Your task to perform on an android device: What is the capital of Germany? Image 0: 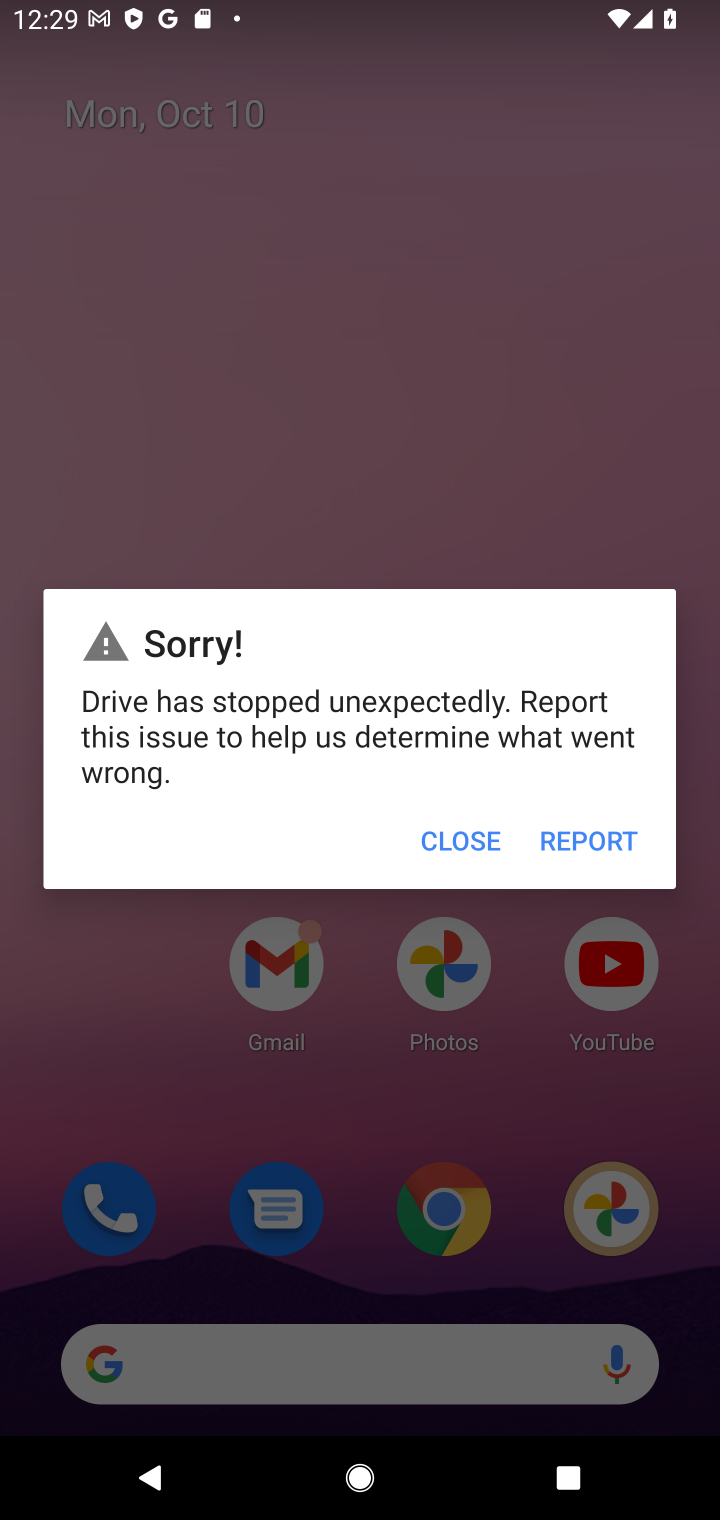
Step 0: drag from (351, 846) to (381, 241)
Your task to perform on an android device: What is the capital of Germany? Image 1: 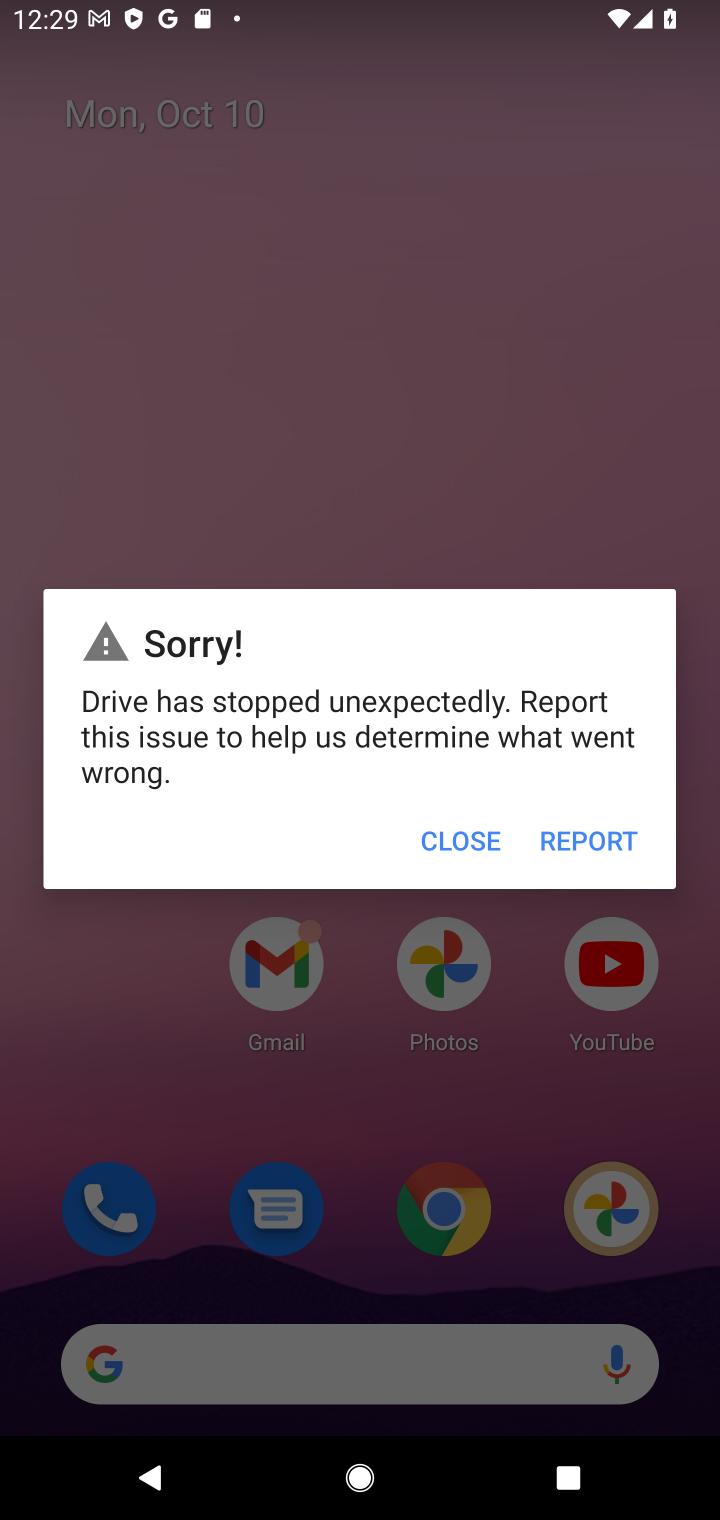
Step 1: click (465, 844)
Your task to perform on an android device: What is the capital of Germany? Image 2: 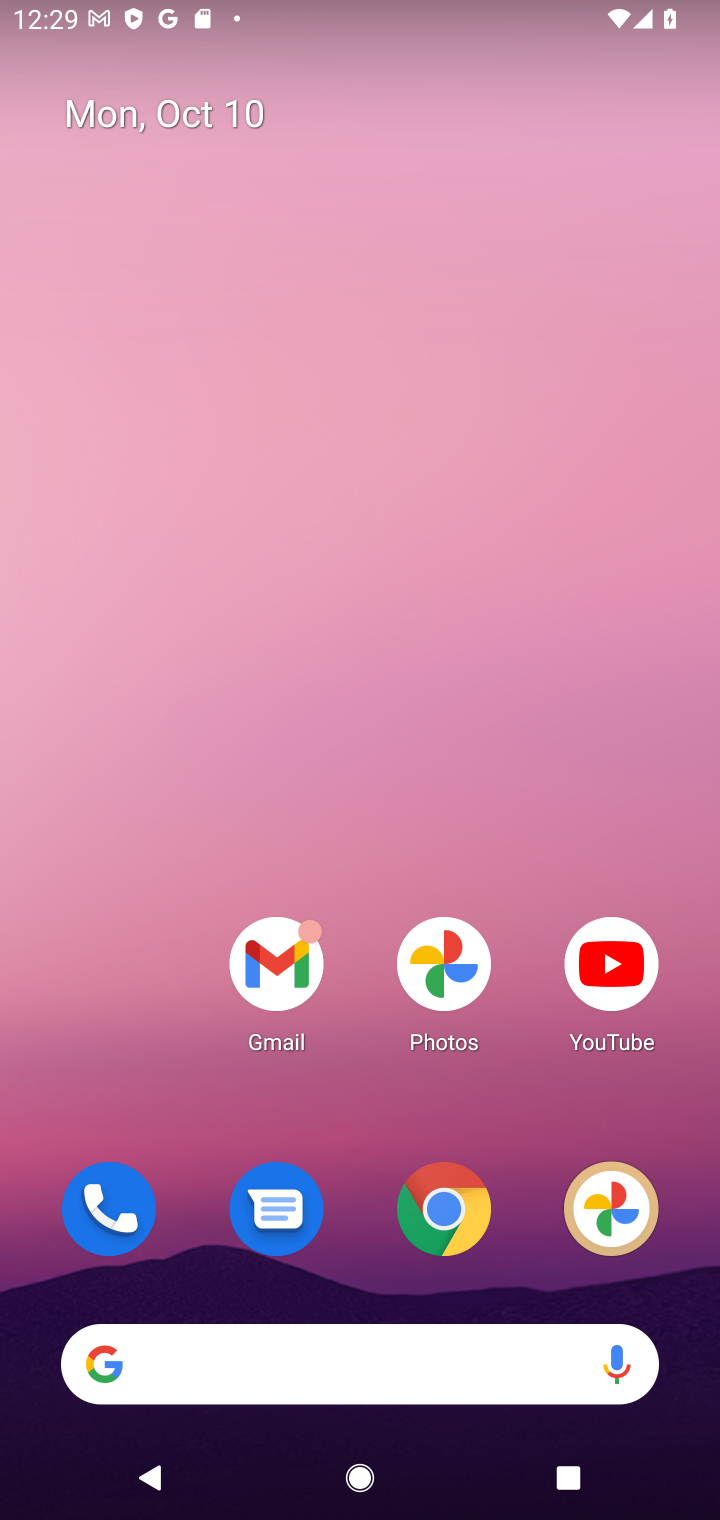
Step 2: drag from (353, 1270) to (495, 247)
Your task to perform on an android device: What is the capital of Germany? Image 3: 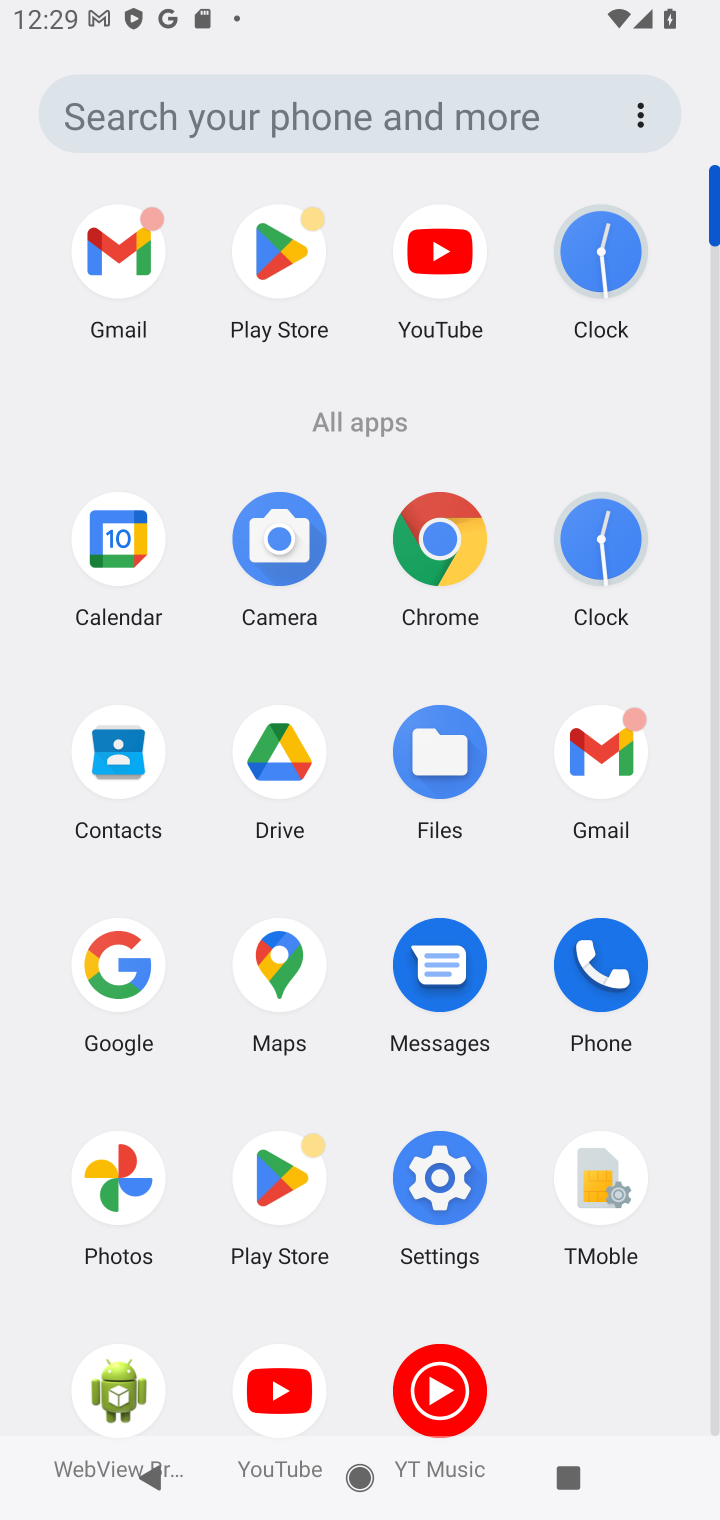
Step 3: click (95, 967)
Your task to perform on an android device: What is the capital of Germany? Image 4: 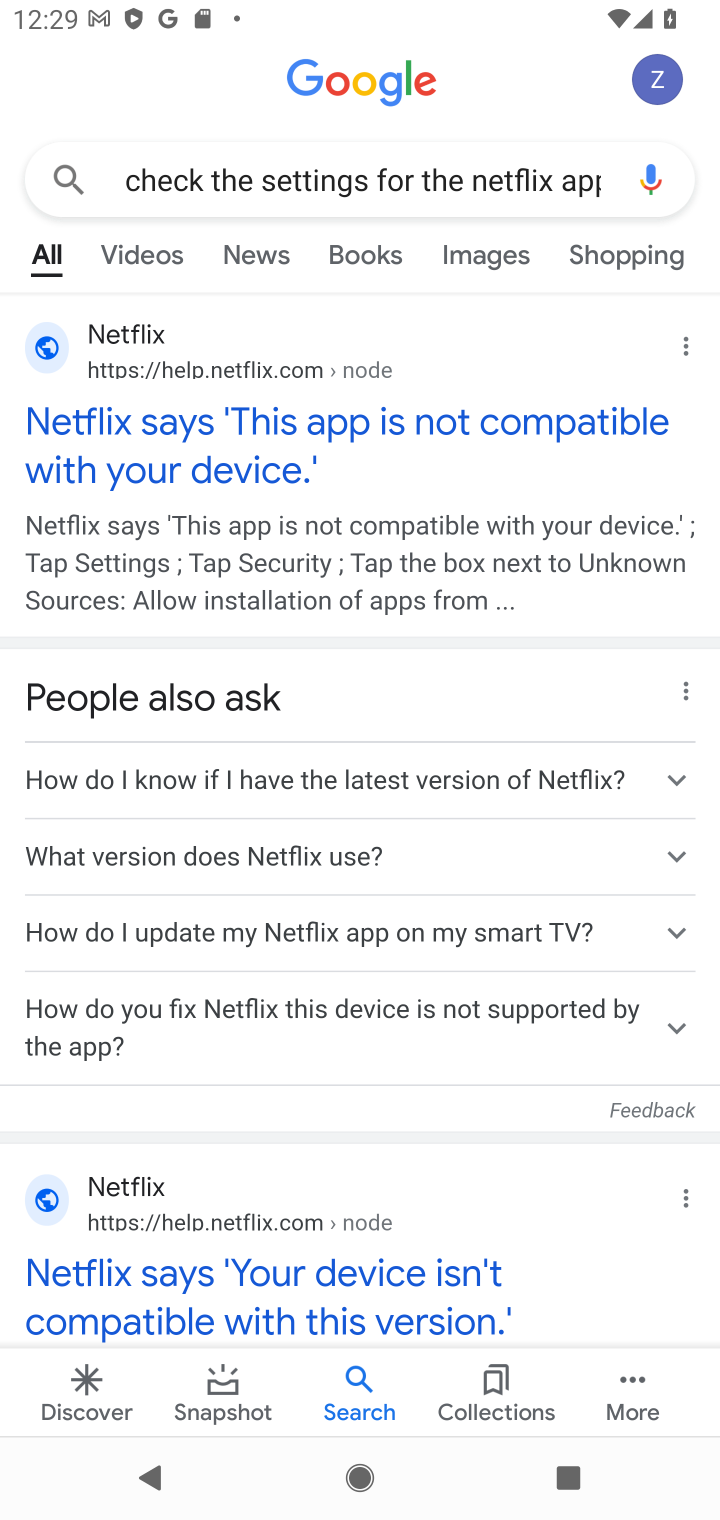
Step 4: click (480, 168)
Your task to perform on an android device: What is the capital of Germany? Image 5: 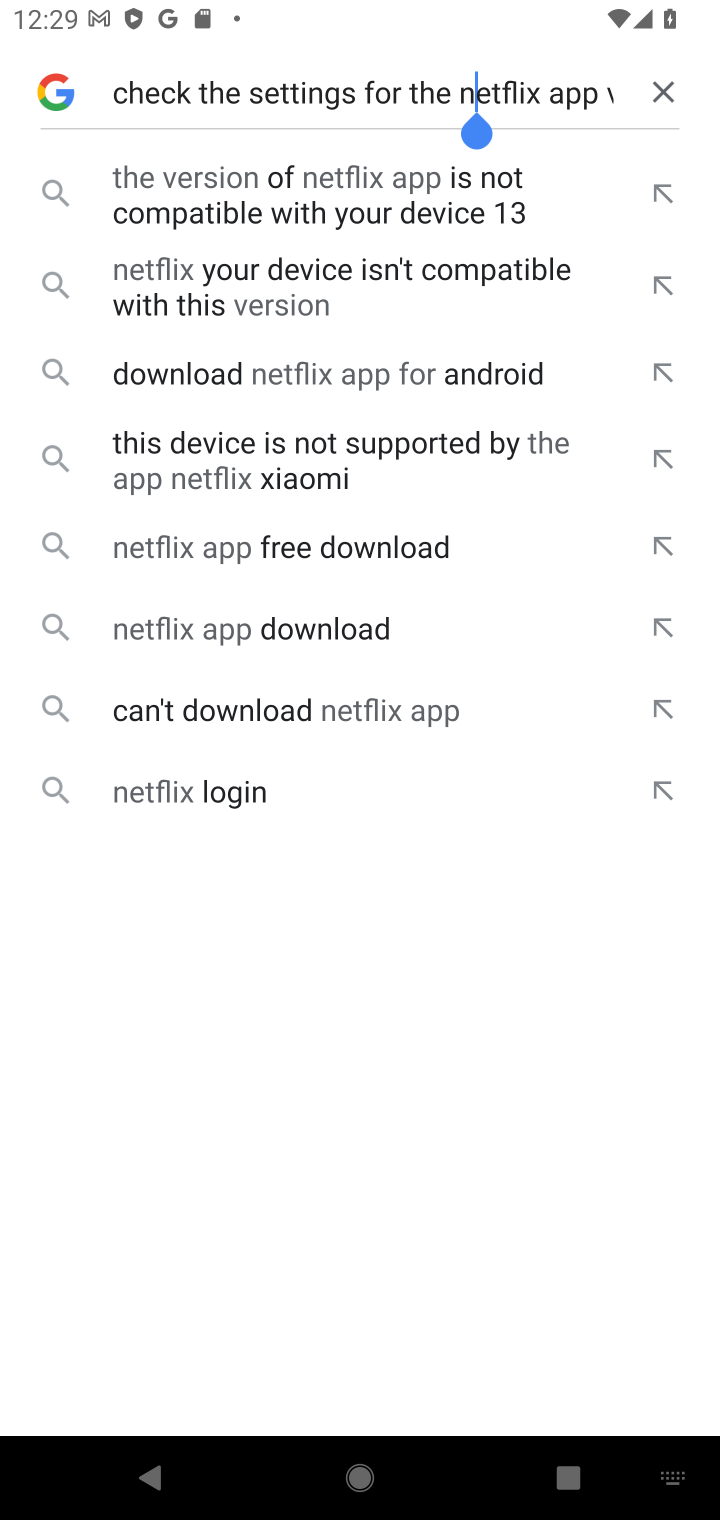
Step 5: click (659, 108)
Your task to perform on an android device: What is the capital of Germany? Image 6: 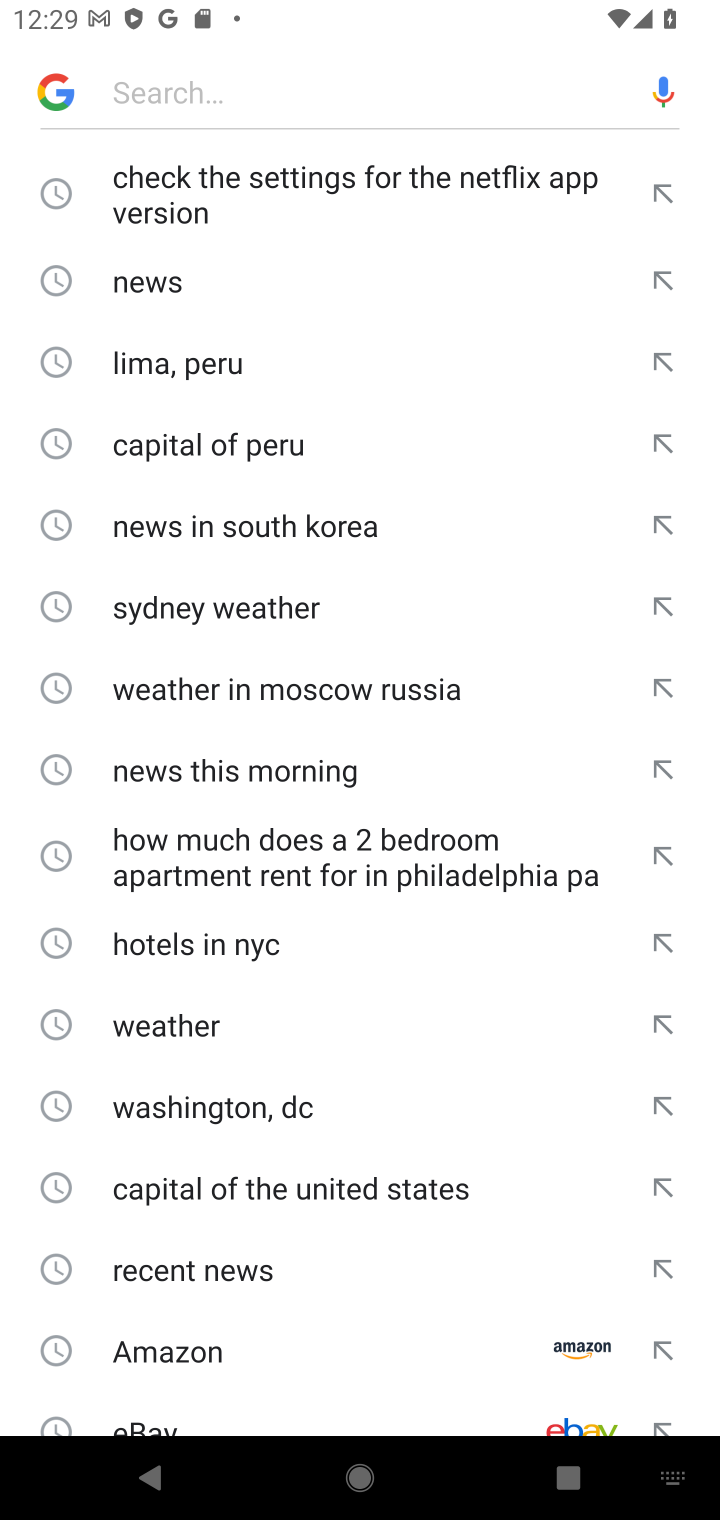
Step 6: type "What is the capital of Germany?"
Your task to perform on an android device: What is the capital of Germany? Image 7: 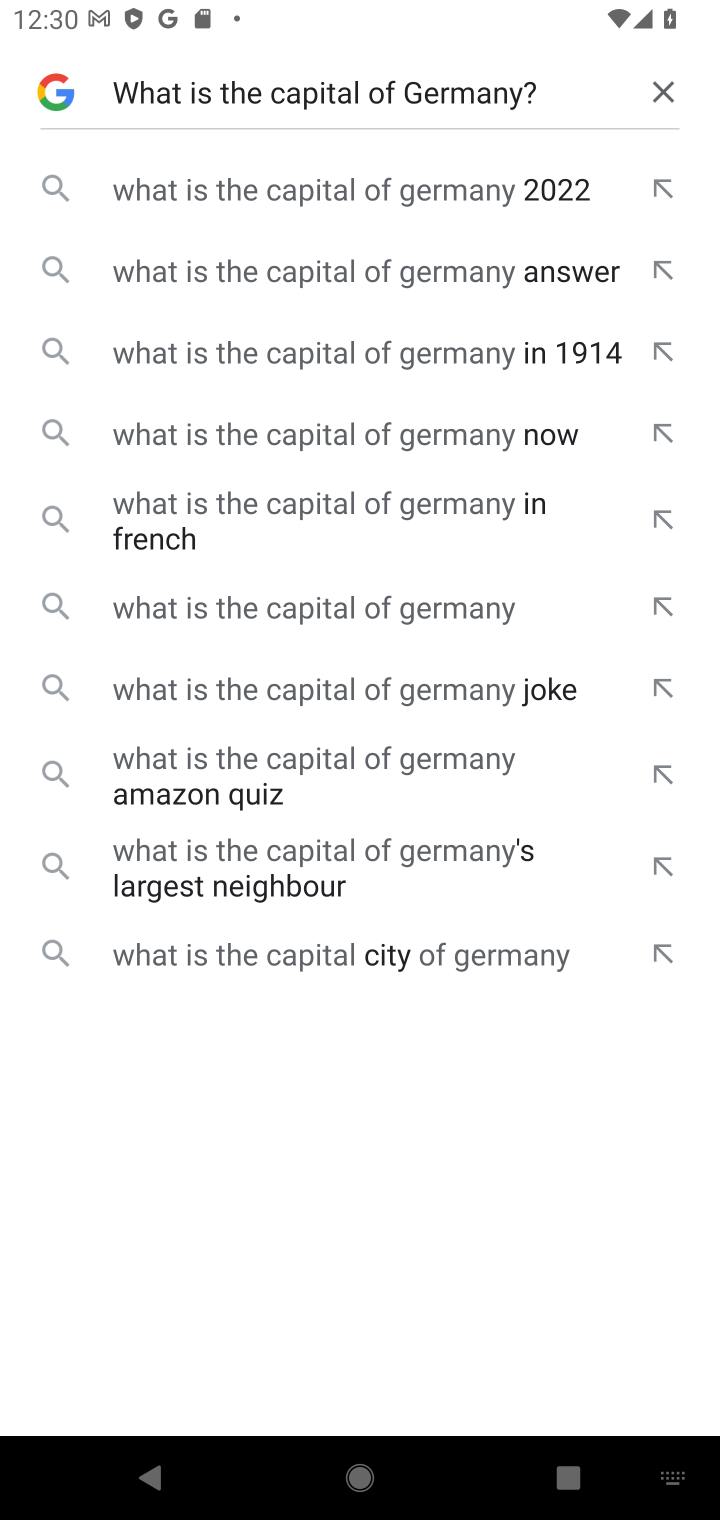
Step 7: click (213, 185)
Your task to perform on an android device: What is the capital of Germany? Image 8: 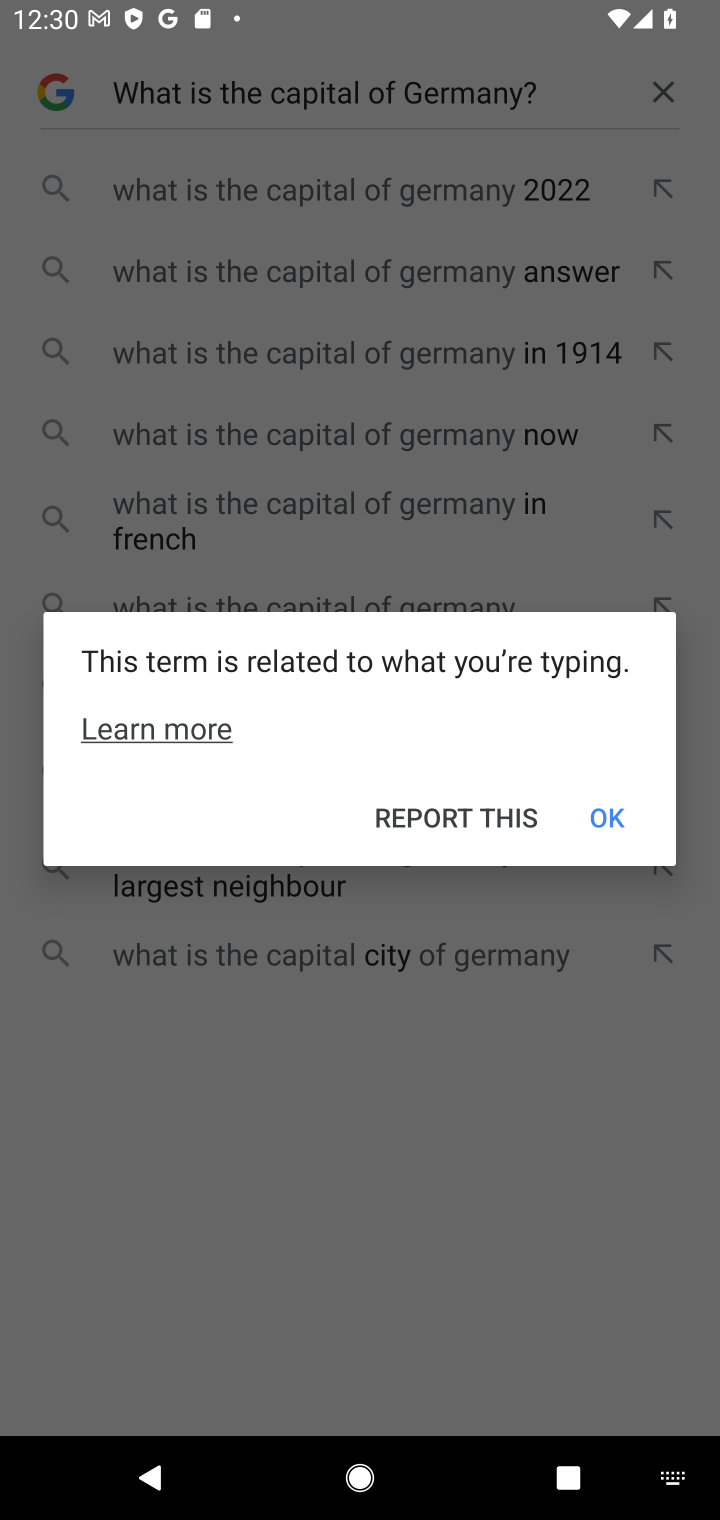
Step 8: click (606, 819)
Your task to perform on an android device: What is the capital of Germany? Image 9: 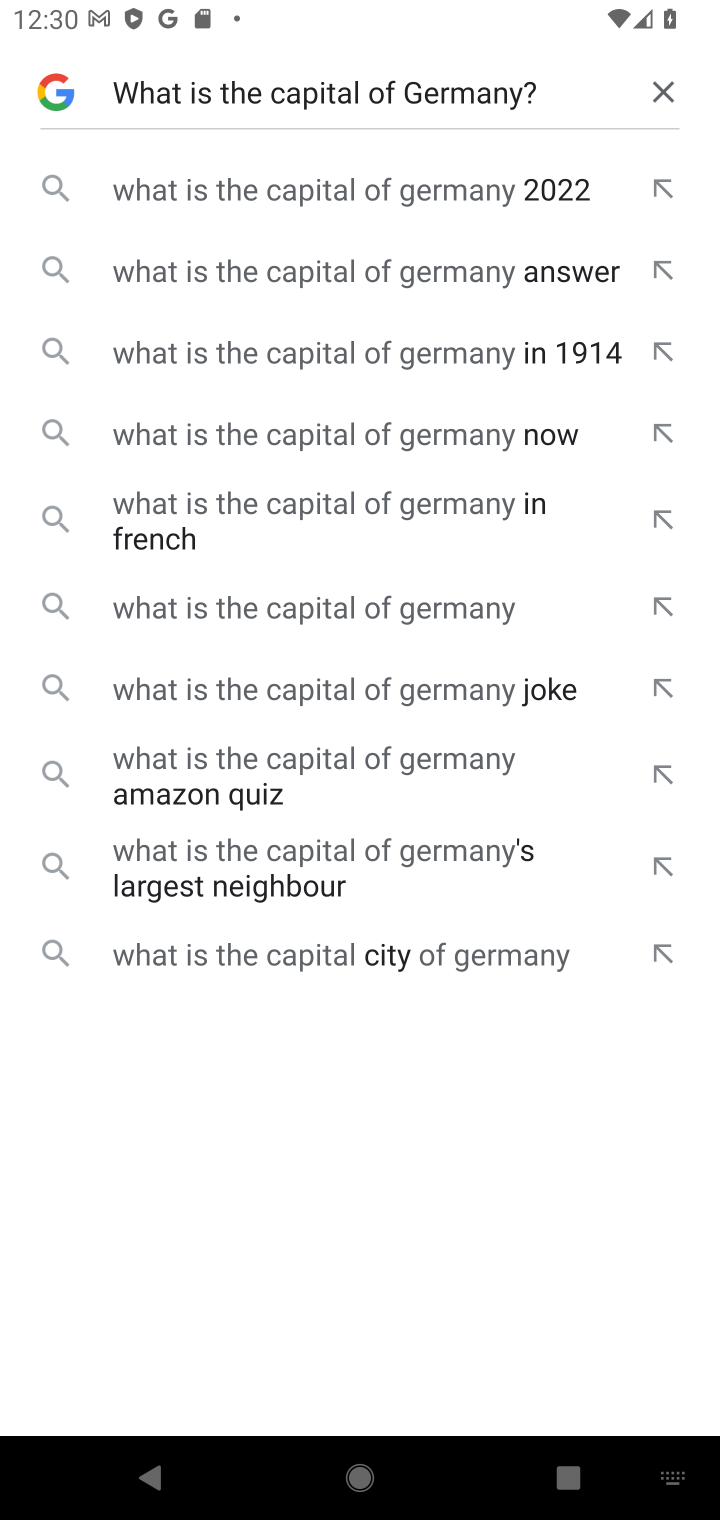
Step 9: click (451, 187)
Your task to perform on an android device: What is the capital of Germany? Image 10: 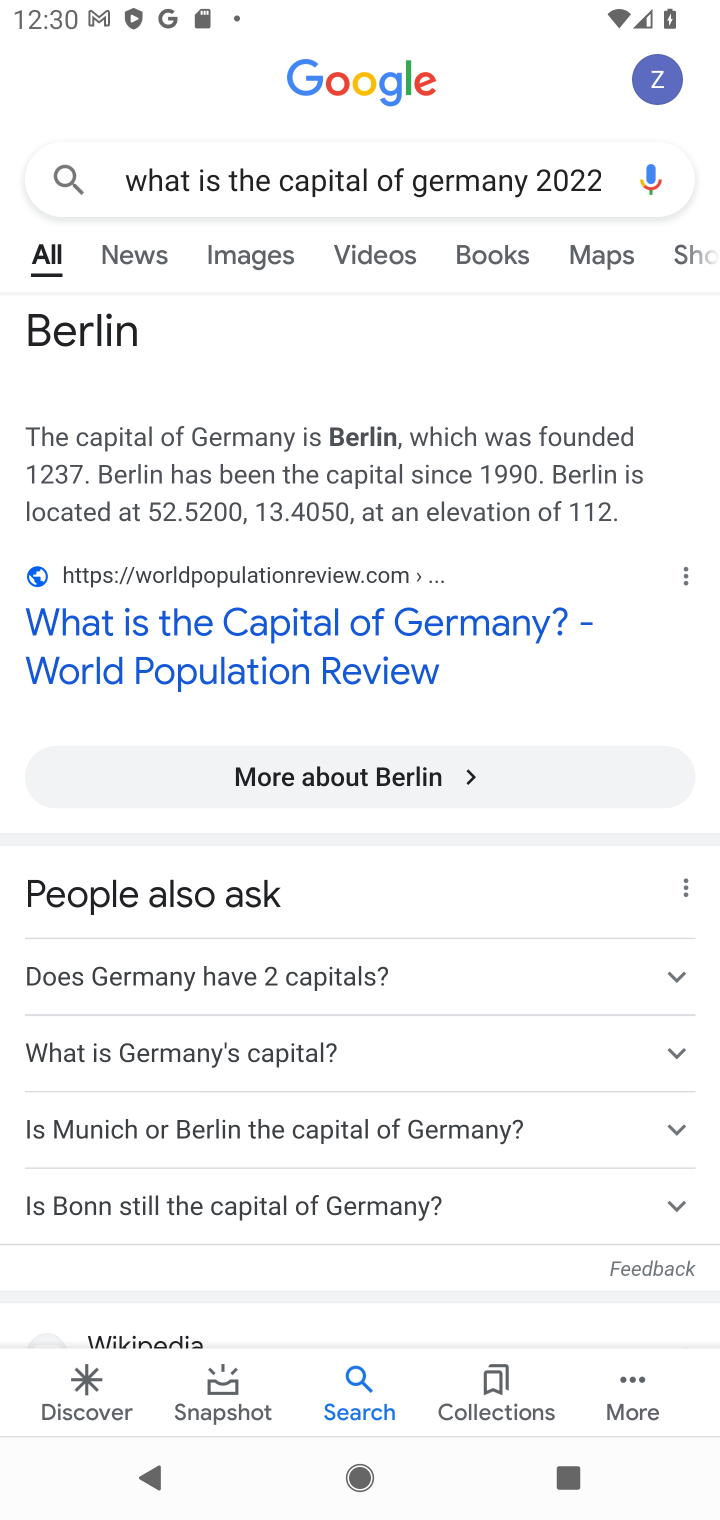
Step 10: task complete